Your task to perform on an android device: Open ESPN.com Image 0: 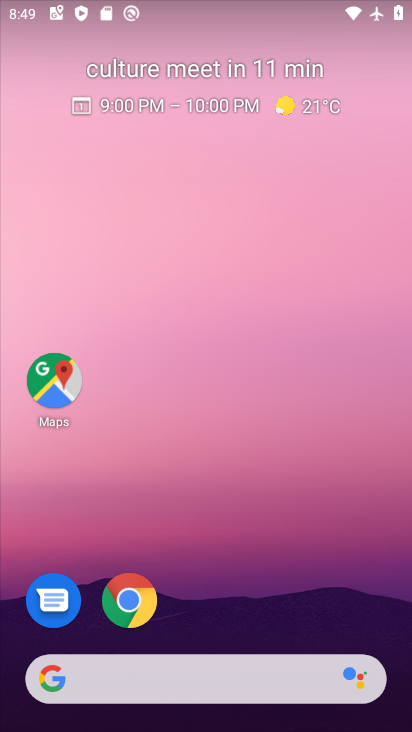
Step 0: click (131, 601)
Your task to perform on an android device: Open ESPN.com Image 1: 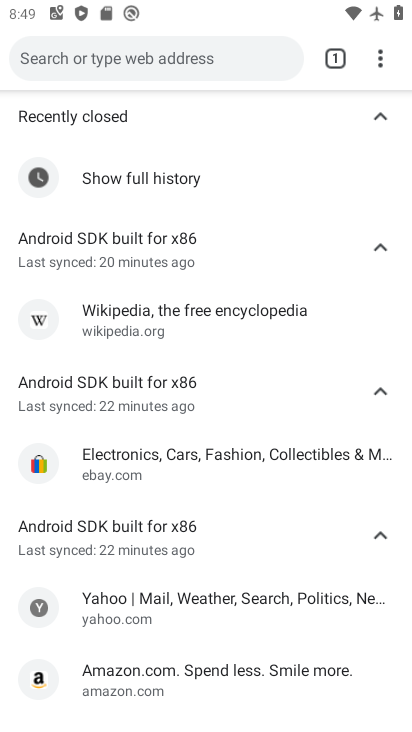
Step 1: click (162, 52)
Your task to perform on an android device: Open ESPN.com Image 2: 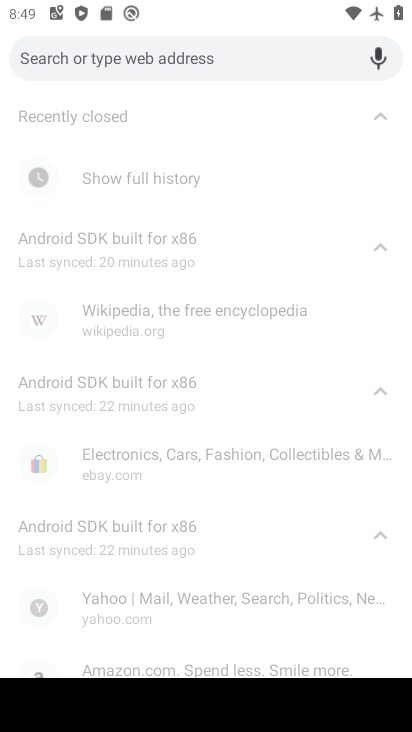
Step 2: type "espn.com"
Your task to perform on an android device: Open ESPN.com Image 3: 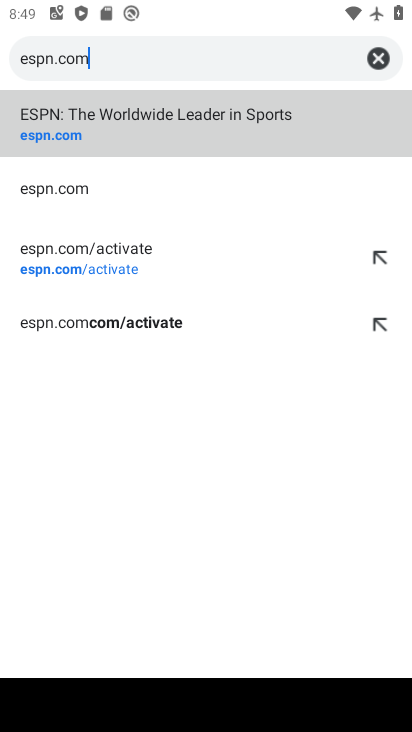
Step 3: click (103, 112)
Your task to perform on an android device: Open ESPN.com Image 4: 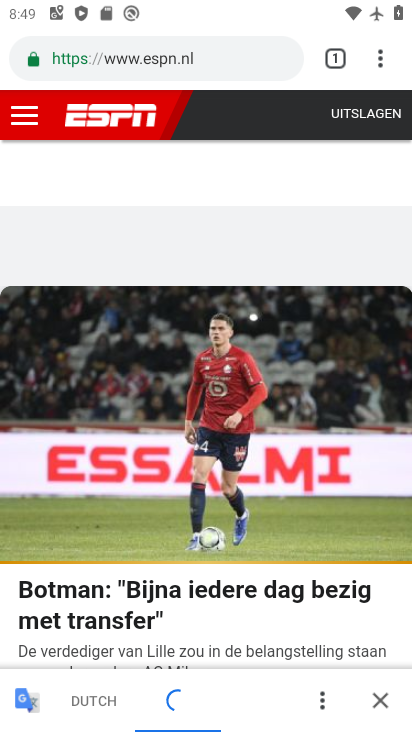
Step 4: task complete